Your task to perform on an android device: move a message to another label in the gmail app Image 0: 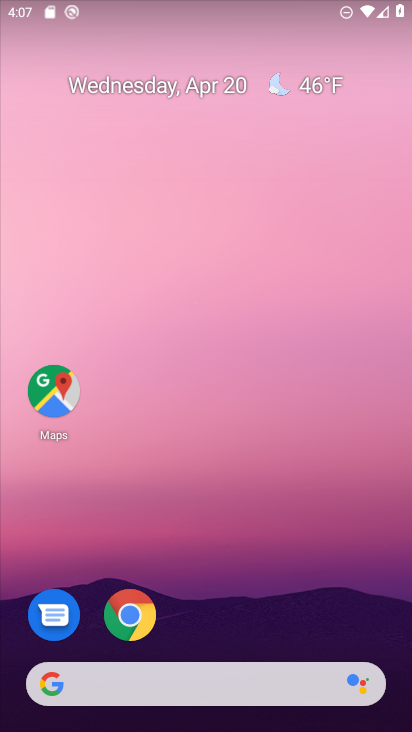
Step 0: drag from (301, 533) to (383, 117)
Your task to perform on an android device: move a message to another label in the gmail app Image 1: 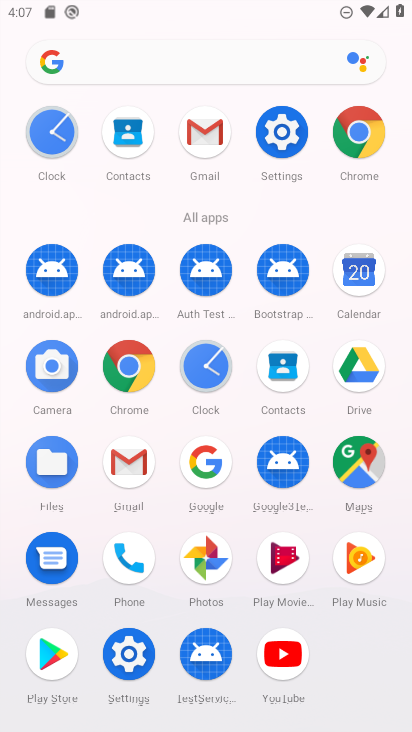
Step 1: click (134, 466)
Your task to perform on an android device: move a message to another label in the gmail app Image 2: 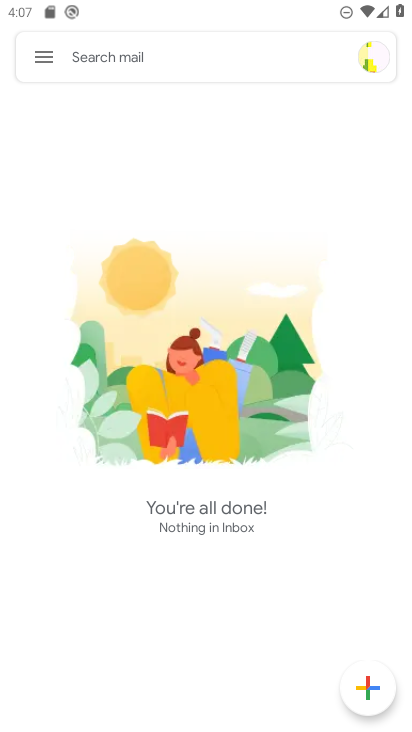
Step 2: task complete